Your task to perform on an android device: Go to settings Image 0: 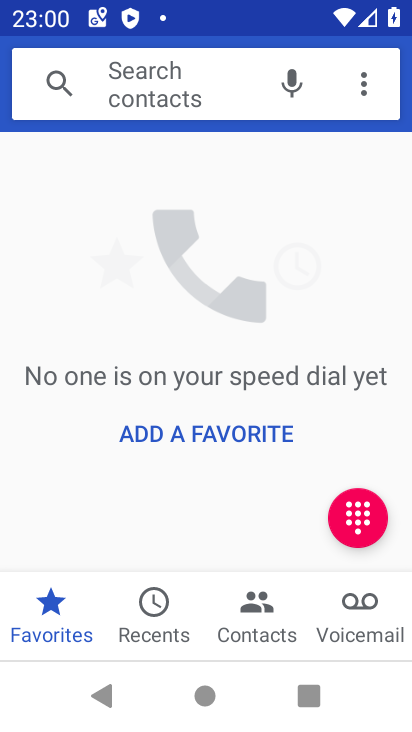
Step 0: press home button
Your task to perform on an android device: Go to settings Image 1: 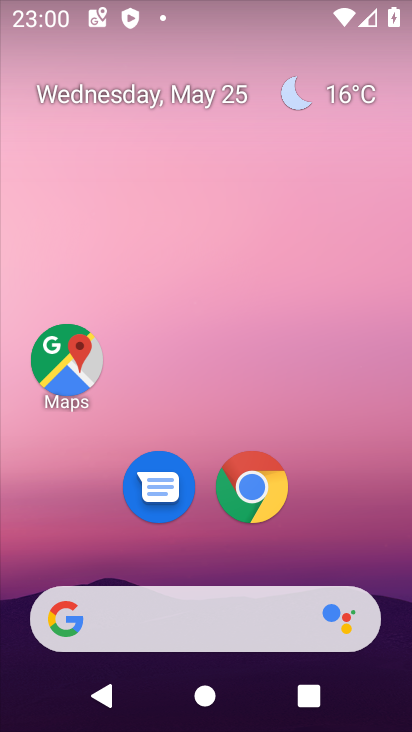
Step 1: drag from (156, 685) to (357, 0)
Your task to perform on an android device: Go to settings Image 2: 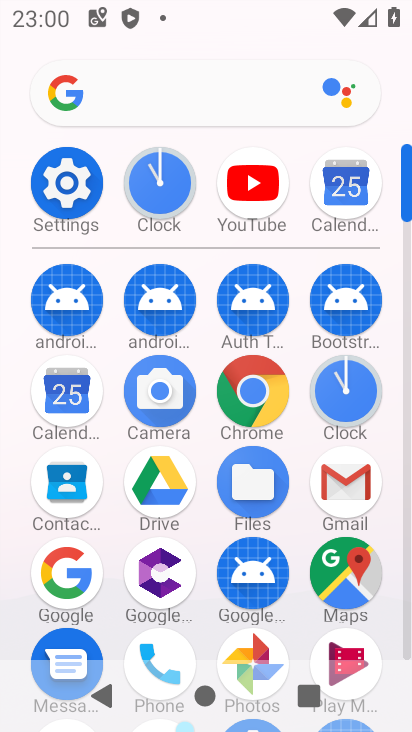
Step 2: click (72, 199)
Your task to perform on an android device: Go to settings Image 3: 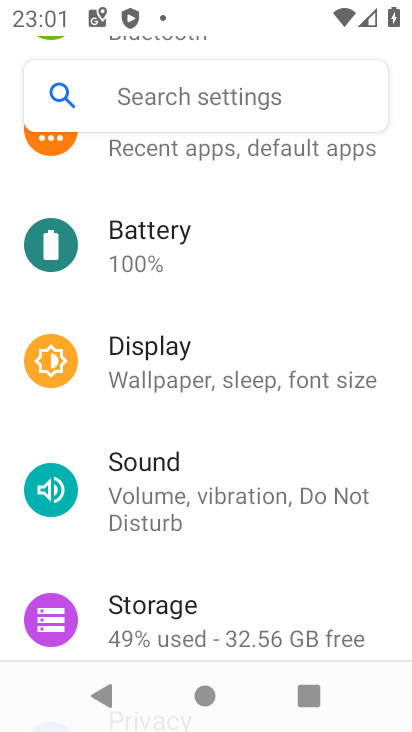
Step 3: task complete